Your task to perform on an android device: turn on the 24-hour format for clock Image 0: 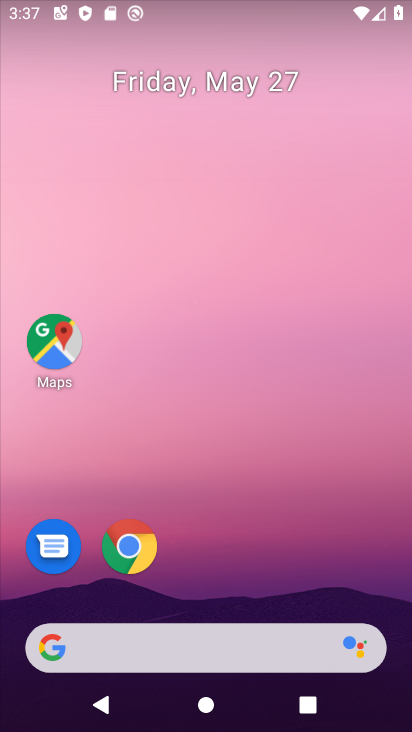
Step 0: drag from (393, 710) to (403, 94)
Your task to perform on an android device: turn on the 24-hour format for clock Image 1: 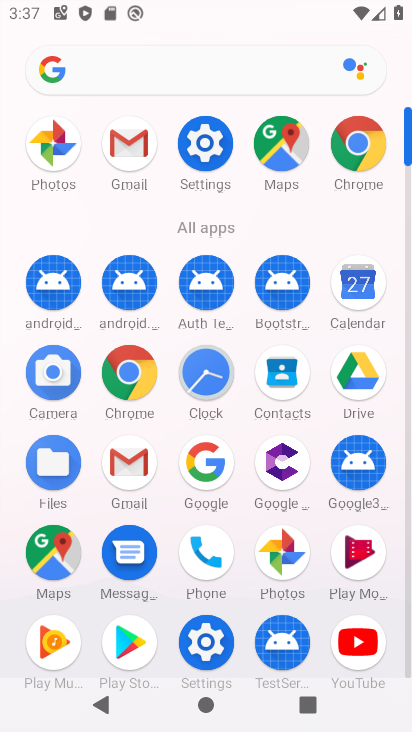
Step 1: click (195, 372)
Your task to perform on an android device: turn on the 24-hour format for clock Image 2: 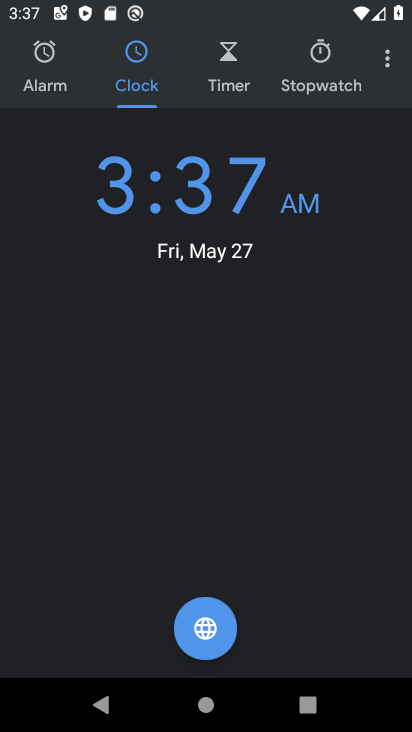
Step 2: click (389, 56)
Your task to perform on an android device: turn on the 24-hour format for clock Image 3: 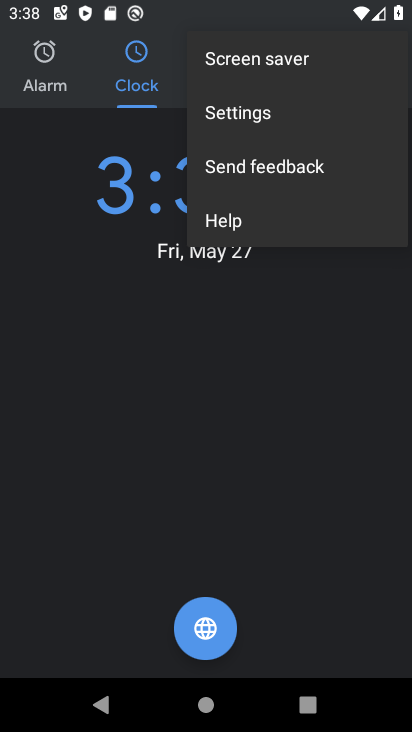
Step 3: click (253, 123)
Your task to perform on an android device: turn on the 24-hour format for clock Image 4: 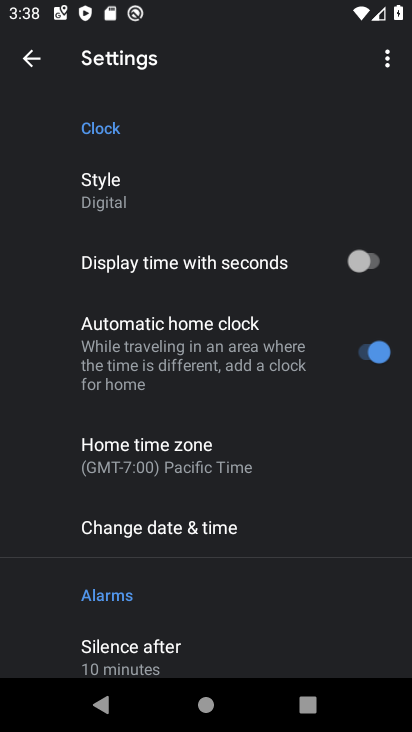
Step 4: click (180, 531)
Your task to perform on an android device: turn on the 24-hour format for clock Image 5: 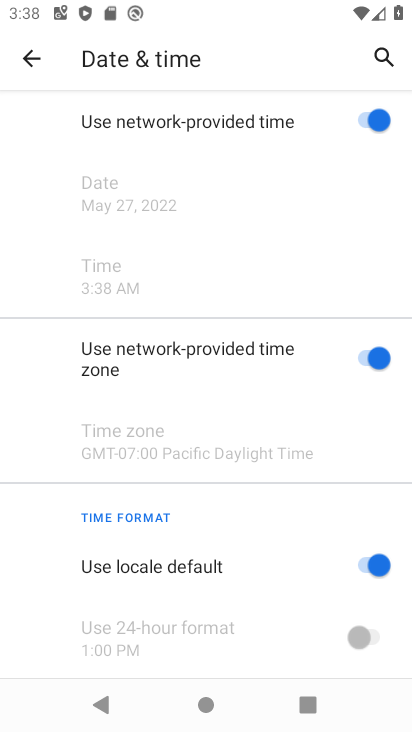
Step 5: click (364, 567)
Your task to perform on an android device: turn on the 24-hour format for clock Image 6: 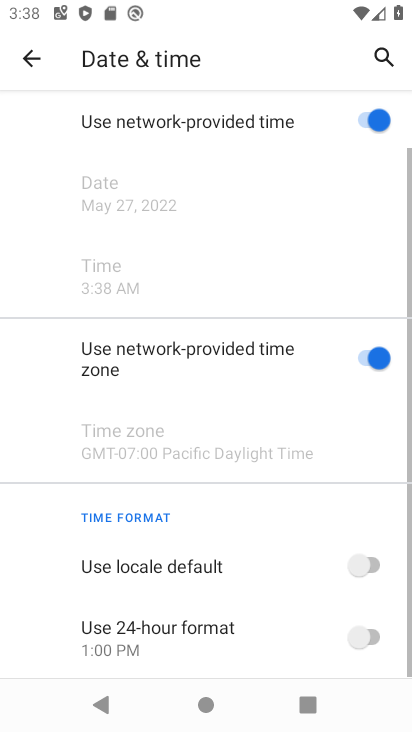
Step 6: click (363, 638)
Your task to perform on an android device: turn on the 24-hour format for clock Image 7: 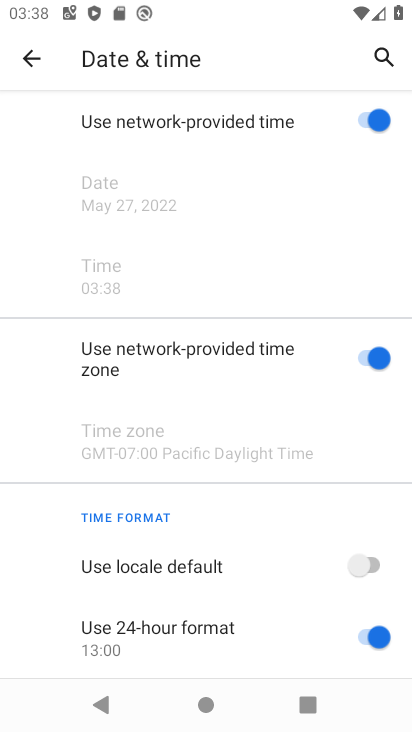
Step 7: task complete